Your task to perform on an android device: Open settings on Google Maps Image 0: 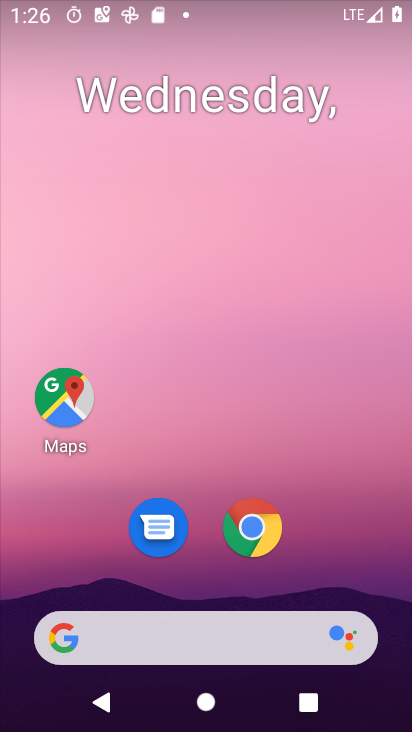
Step 0: drag from (300, 573) to (277, 29)
Your task to perform on an android device: Open settings on Google Maps Image 1: 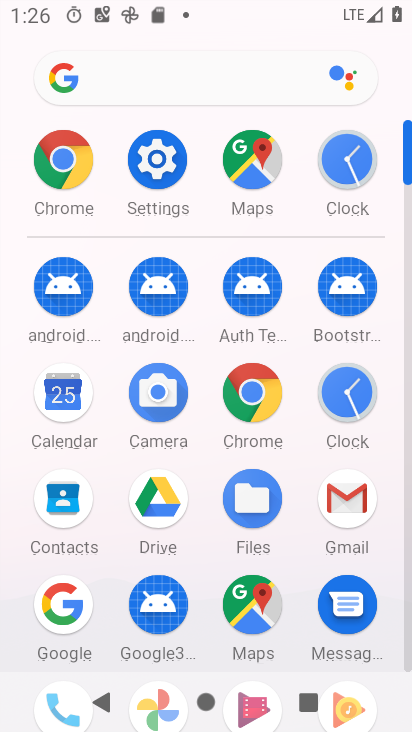
Step 1: click (261, 610)
Your task to perform on an android device: Open settings on Google Maps Image 2: 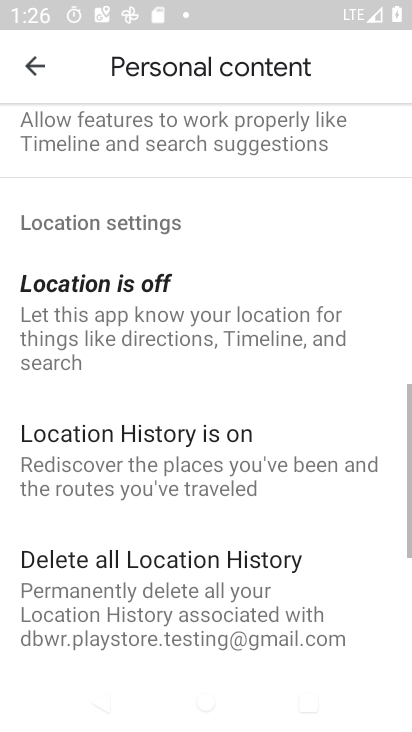
Step 2: task complete